Your task to perform on an android device: Open eBay Image 0: 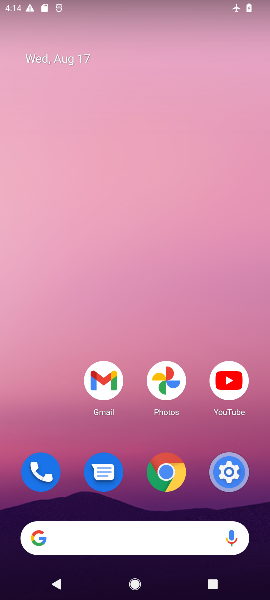
Step 0: click (250, 165)
Your task to perform on an android device: Open eBay Image 1: 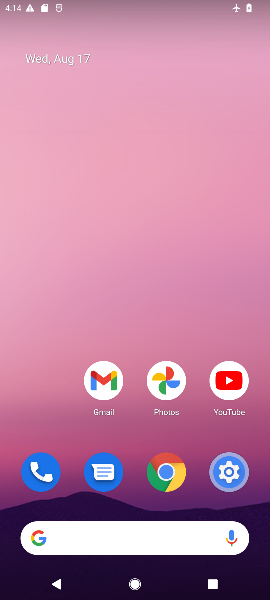
Step 1: drag from (135, 493) to (220, 50)
Your task to perform on an android device: Open eBay Image 2: 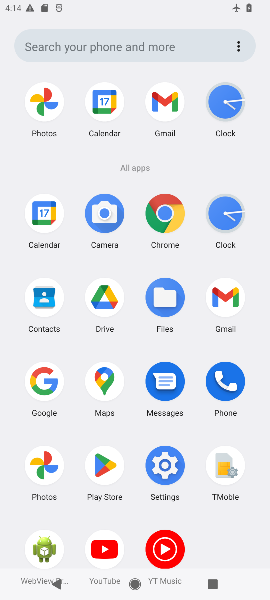
Step 2: click (174, 227)
Your task to perform on an android device: Open eBay Image 3: 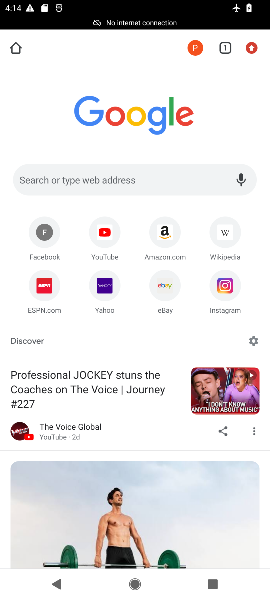
Step 3: click (160, 289)
Your task to perform on an android device: Open eBay Image 4: 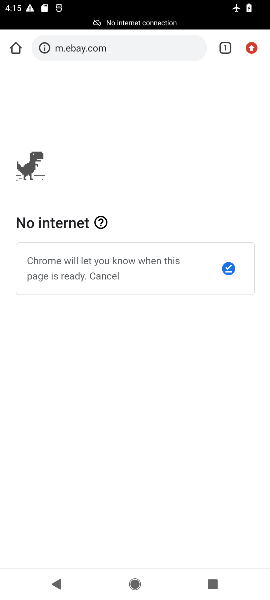
Step 4: task complete